Your task to perform on an android device: set the stopwatch Image 0: 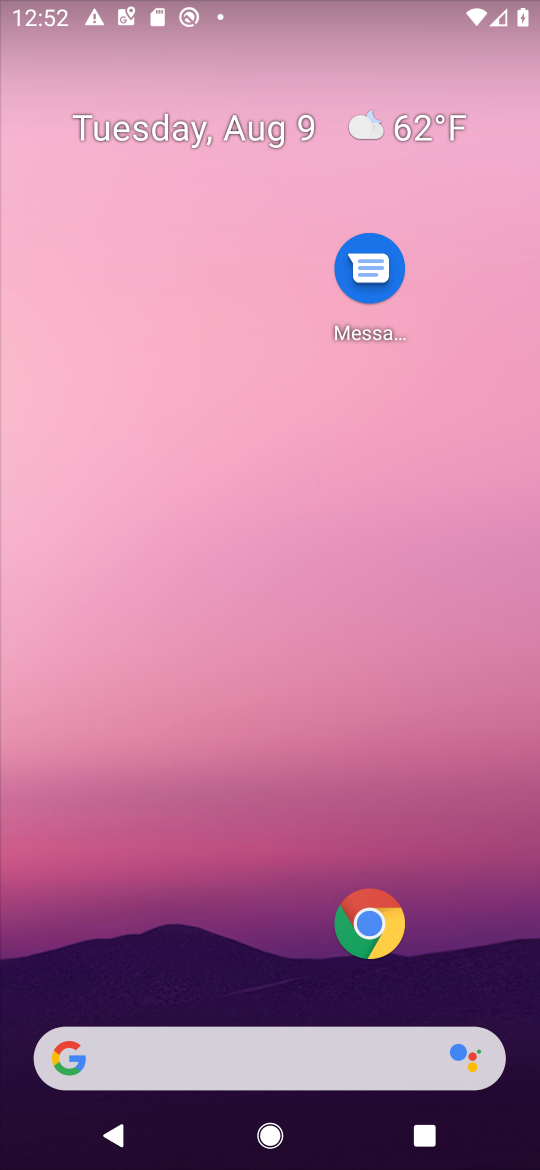
Step 0: drag from (49, 1101) to (311, 493)
Your task to perform on an android device: set the stopwatch Image 1: 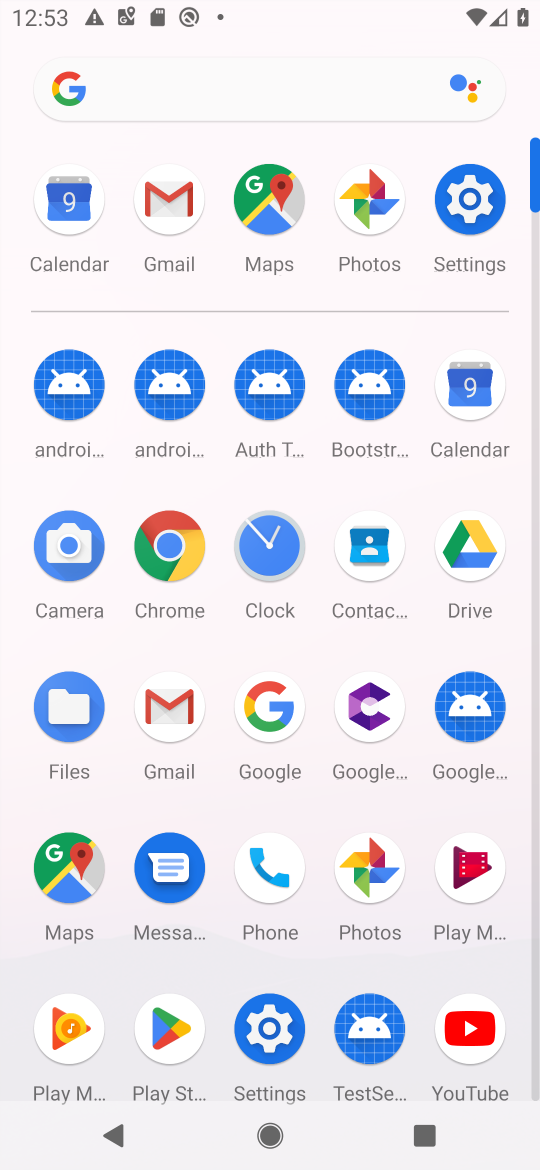
Step 1: click (256, 562)
Your task to perform on an android device: set the stopwatch Image 2: 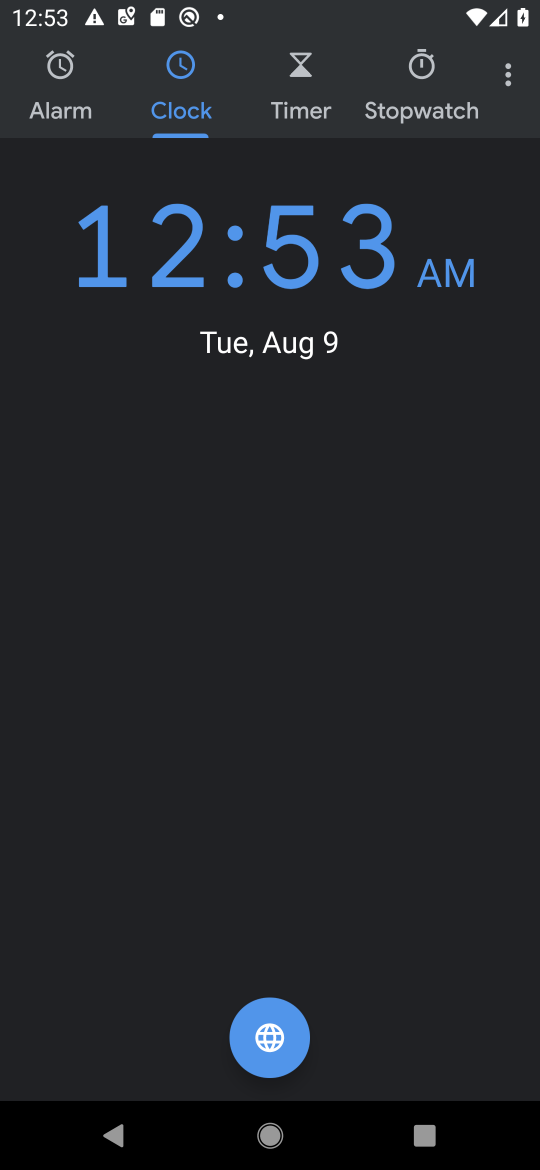
Step 2: click (402, 81)
Your task to perform on an android device: set the stopwatch Image 3: 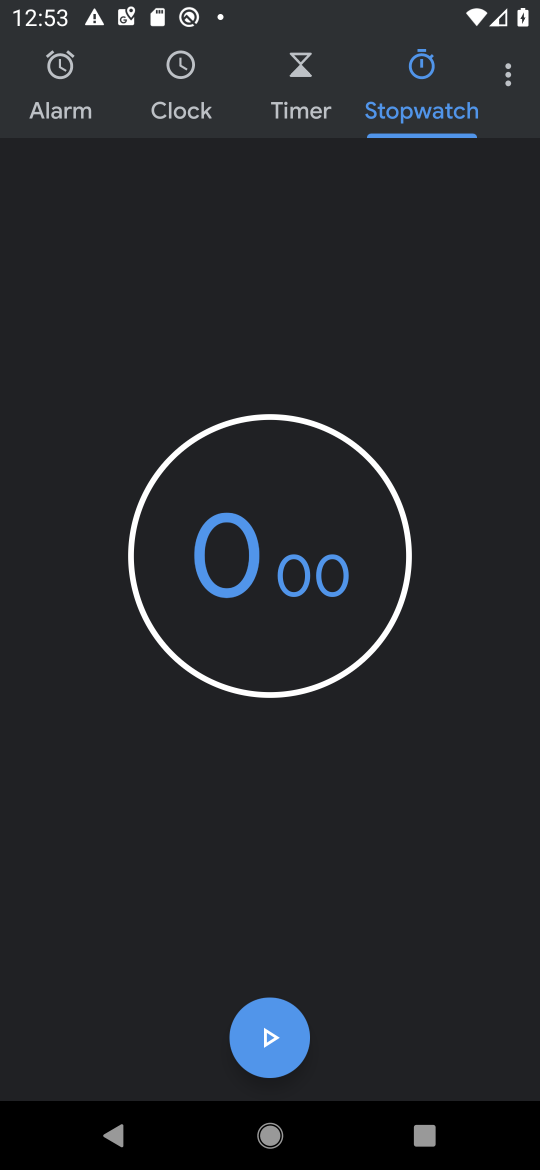
Step 3: click (248, 559)
Your task to perform on an android device: set the stopwatch Image 4: 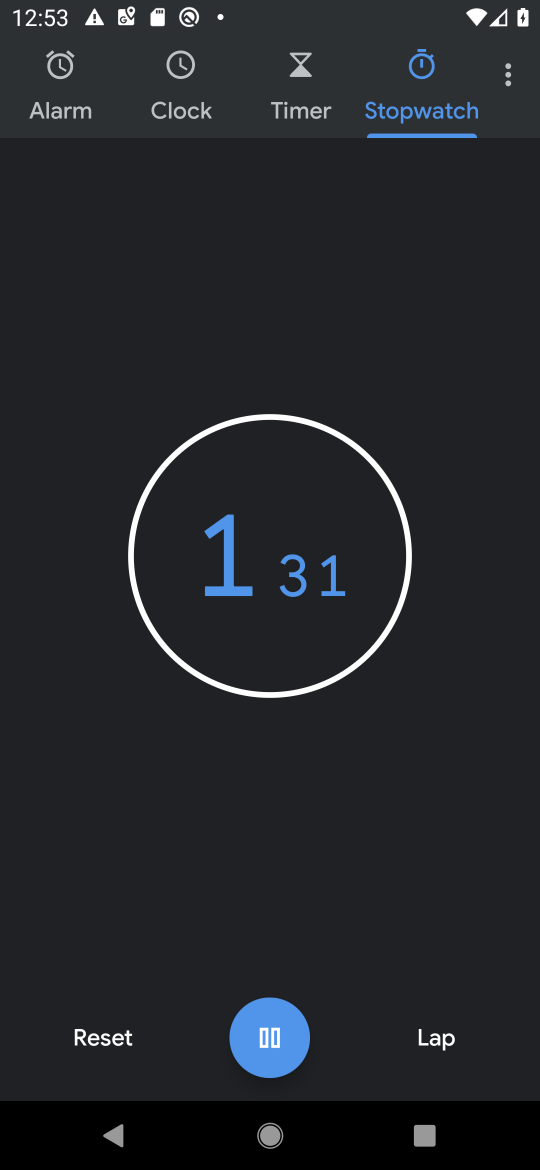
Step 4: click (248, 559)
Your task to perform on an android device: set the stopwatch Image 5: 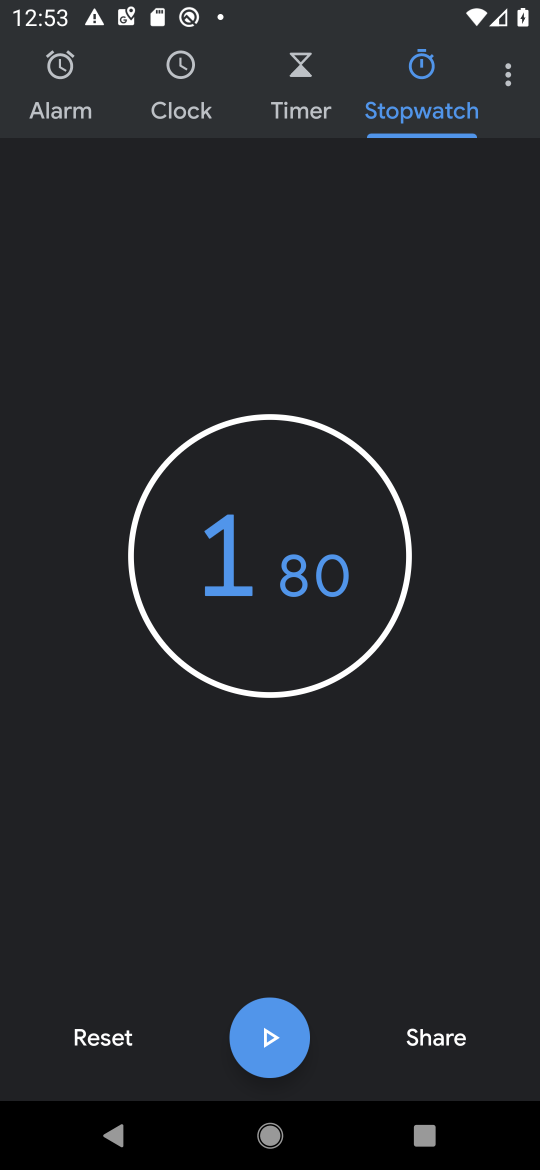
Step 5: task complete